Your task to perform on an android device: Open Wikipedia Image 0: 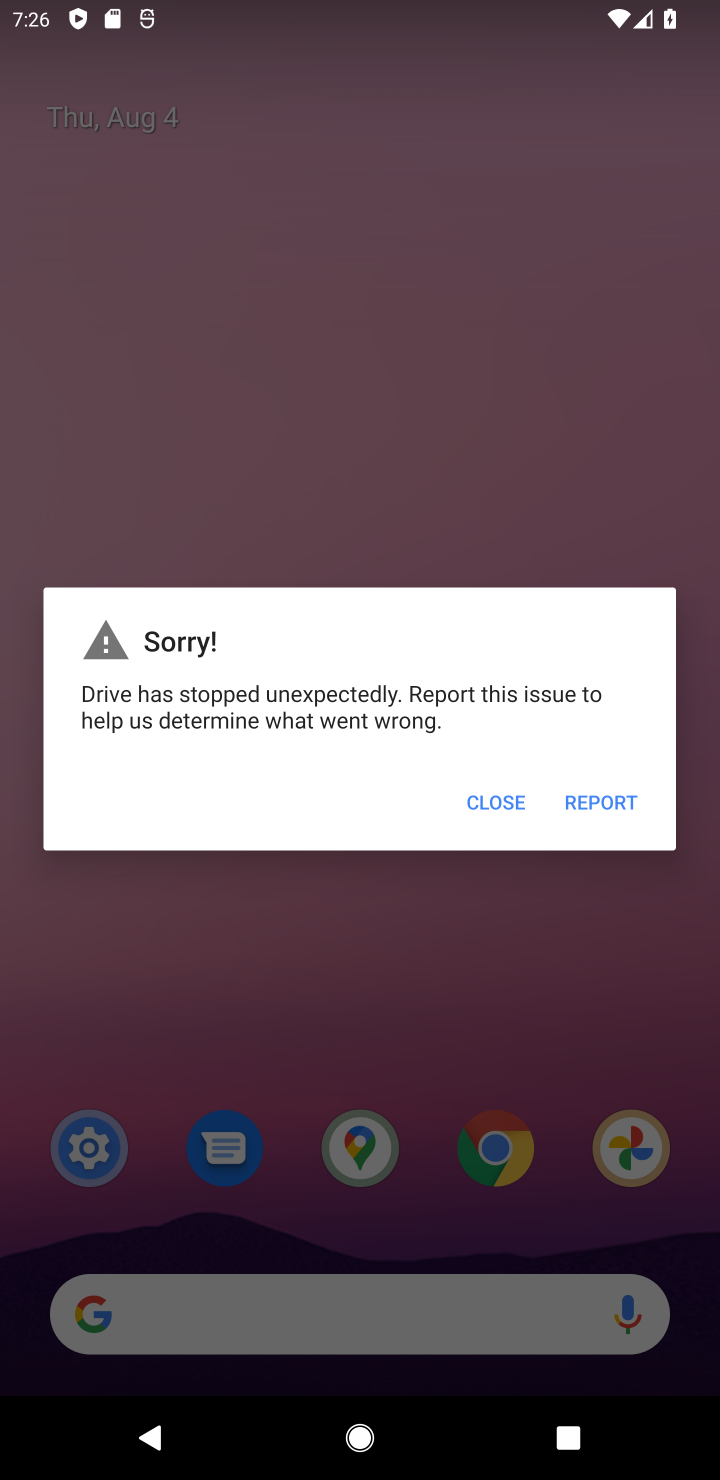
Step 0: press back button
Your task to perform on an android device: Open Wikipedia Image 1: 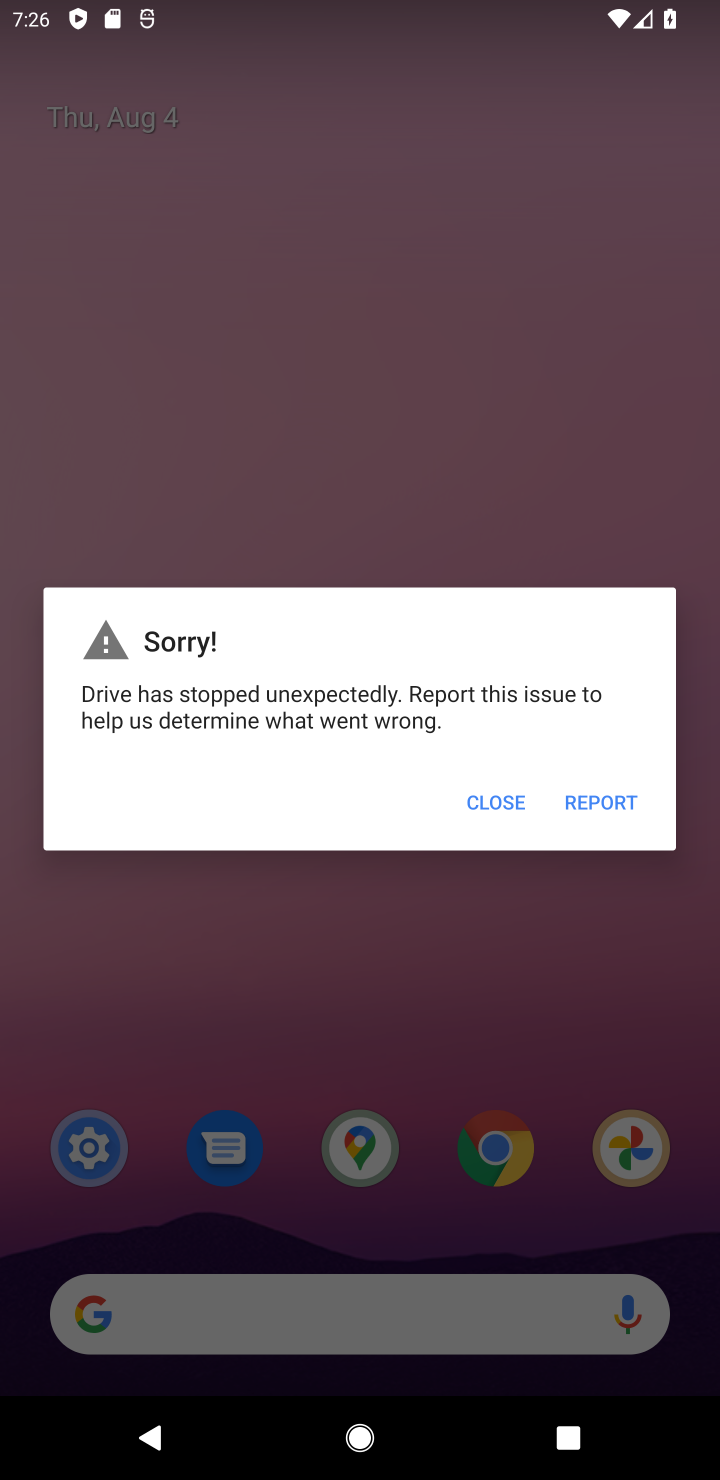
Step 1: press back button
Your task to perform on an android device: Open Wikipedia Image 2: 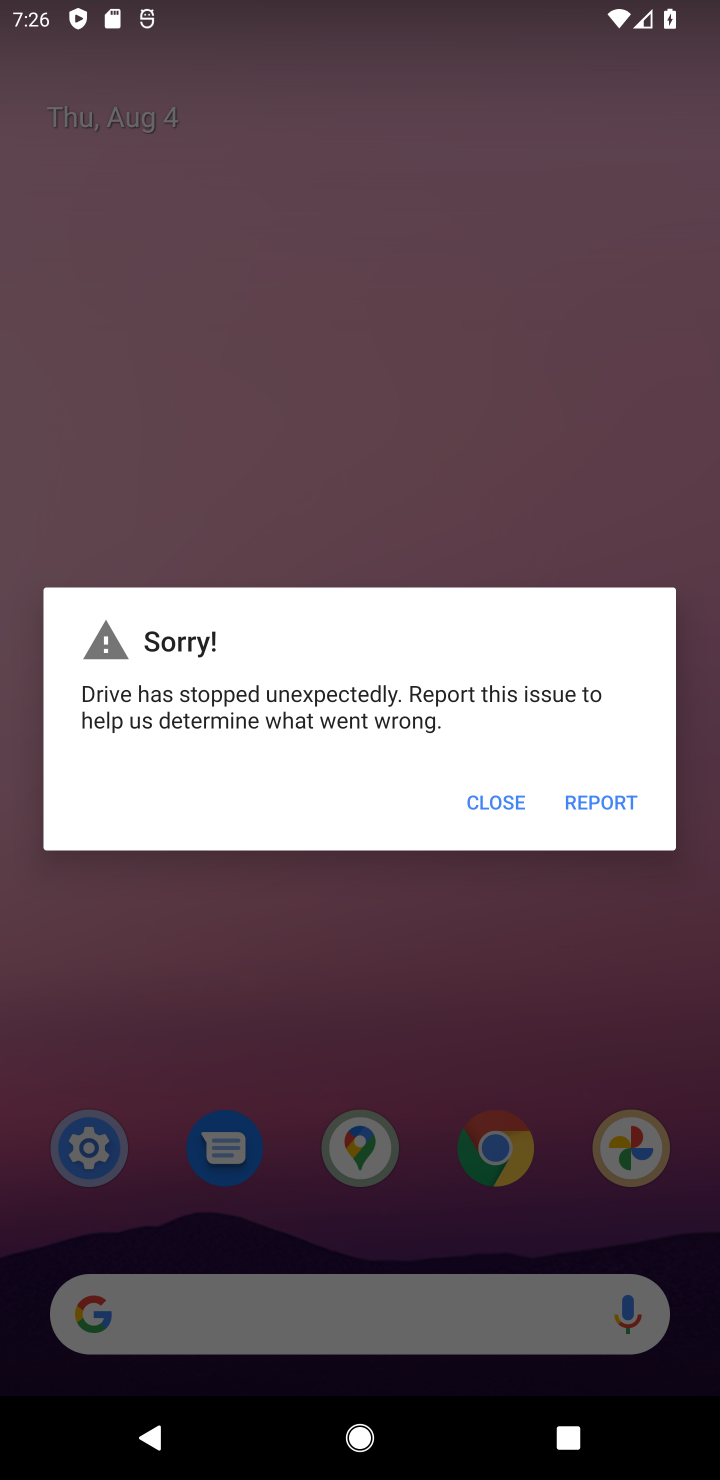
Step 2: press back button
Your task to perform on an android device: Open Wikipedia Image 3: 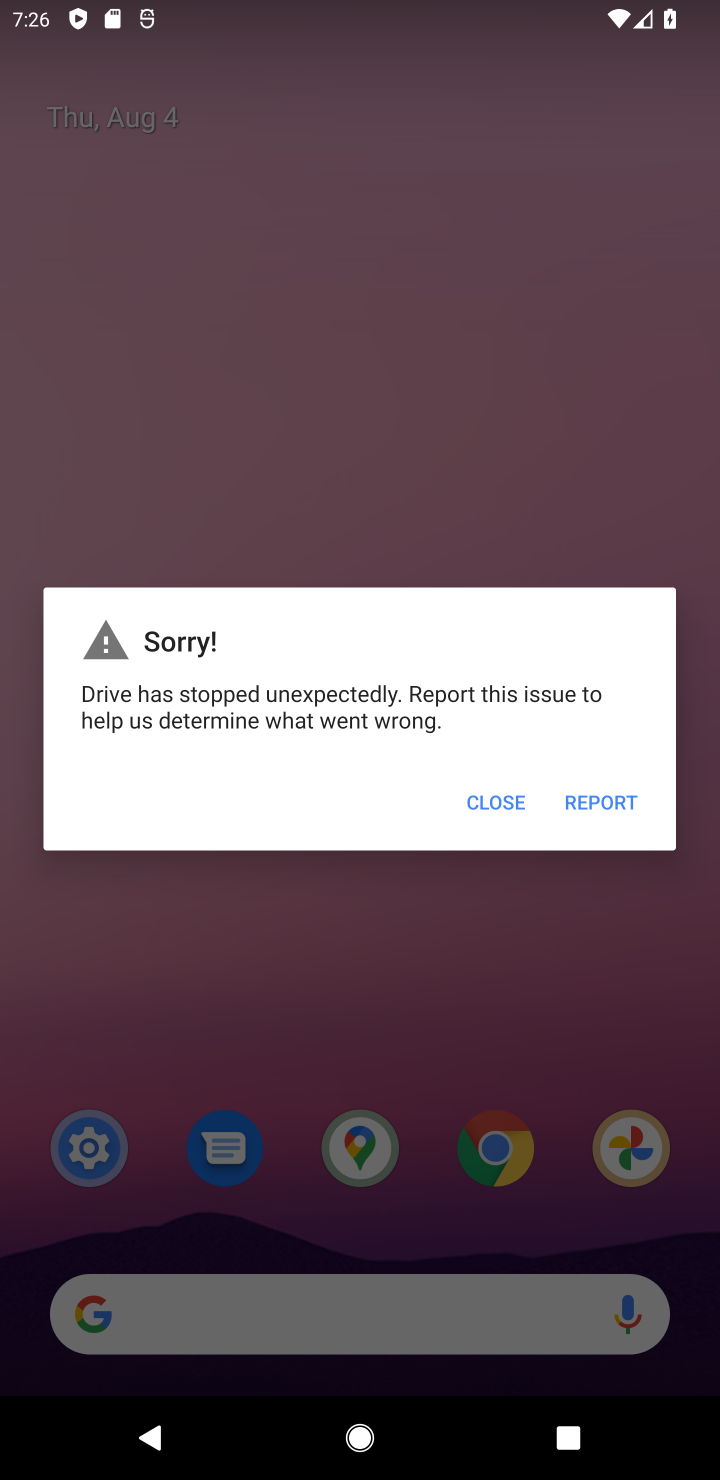
Step 3: click (504, 819)
Your task to perform on an android device: Open Wikipedia Image 4: 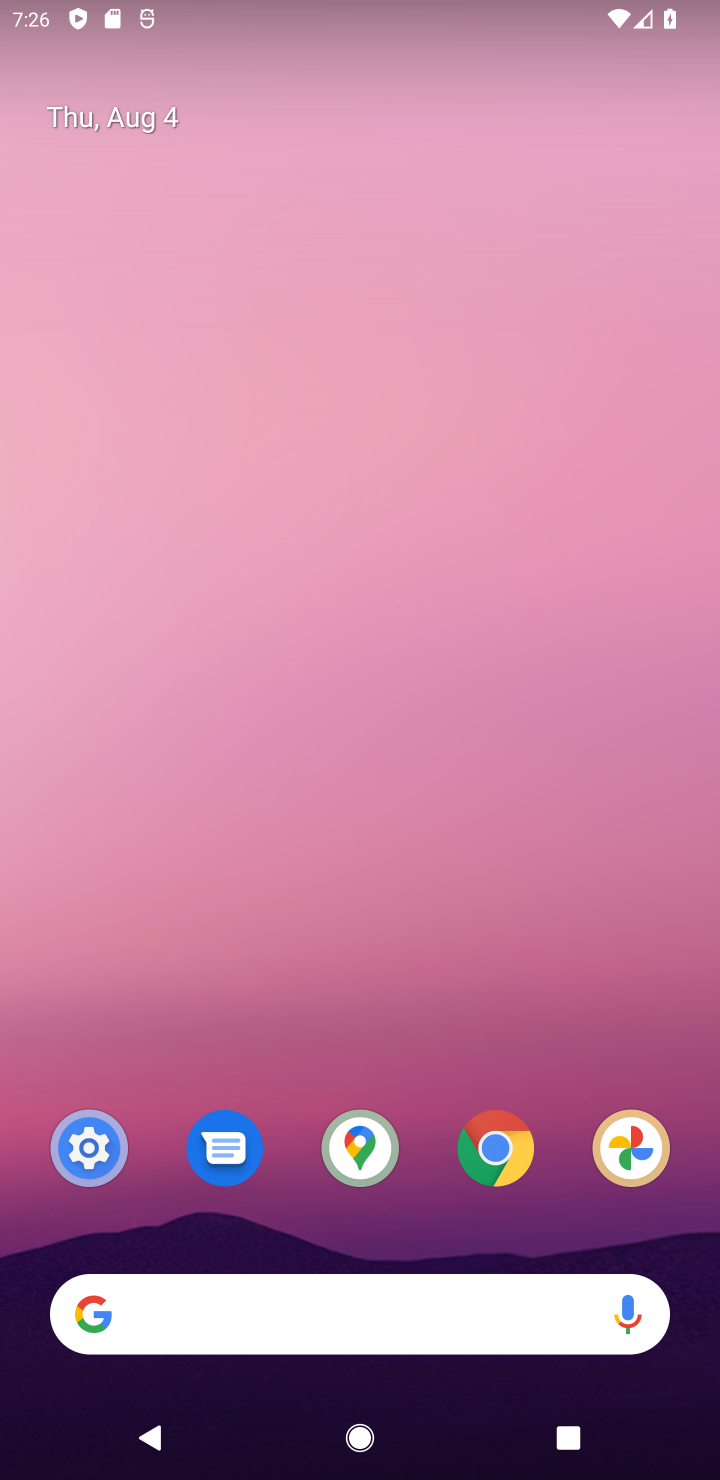
Step 4: click (491, 1155)
Your task to perform on an android device: Open Wikipedia Image 5: 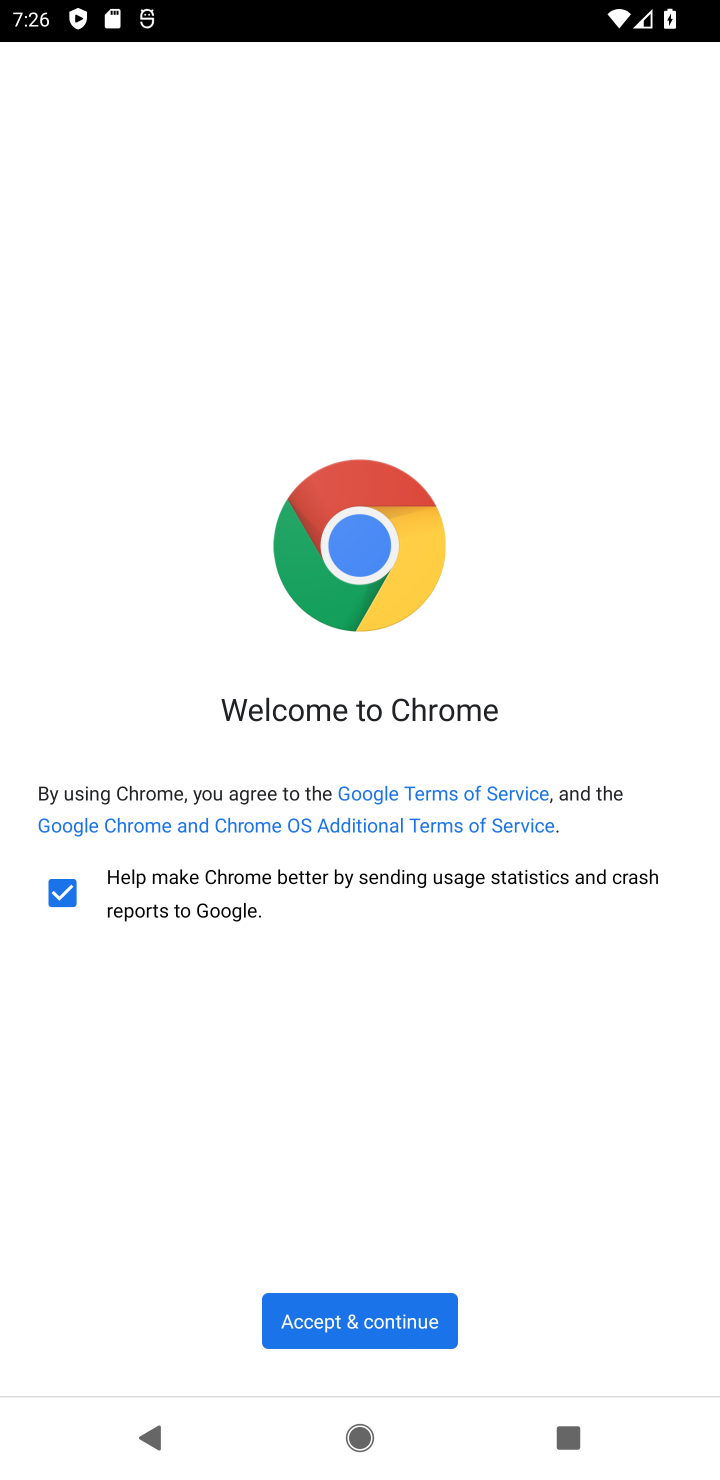
Step 5: click (431, 1328)
Your task to perform on an android device: Open Wikipedia Image 6: 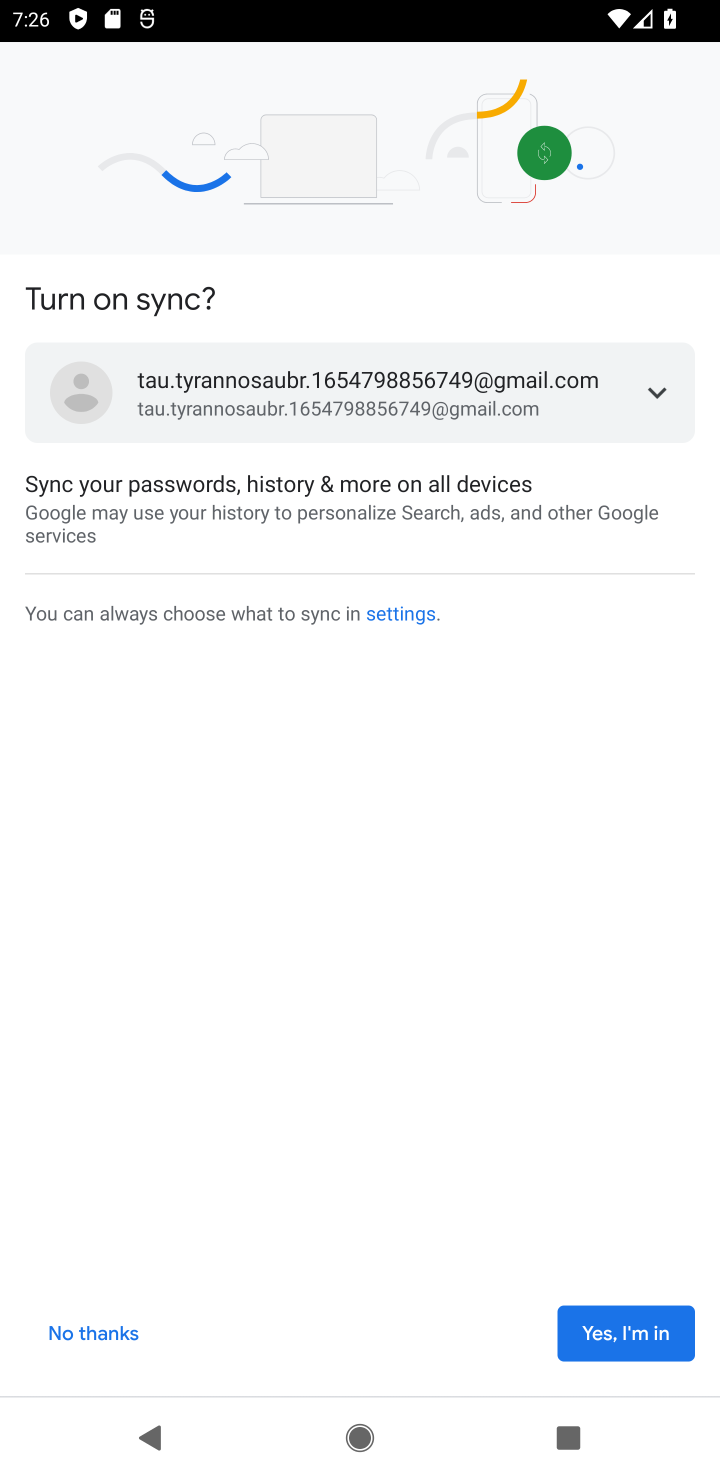
Step 6: click (579, 1335)
Your task to perform on an android device: Open Wikipedia Image 7: 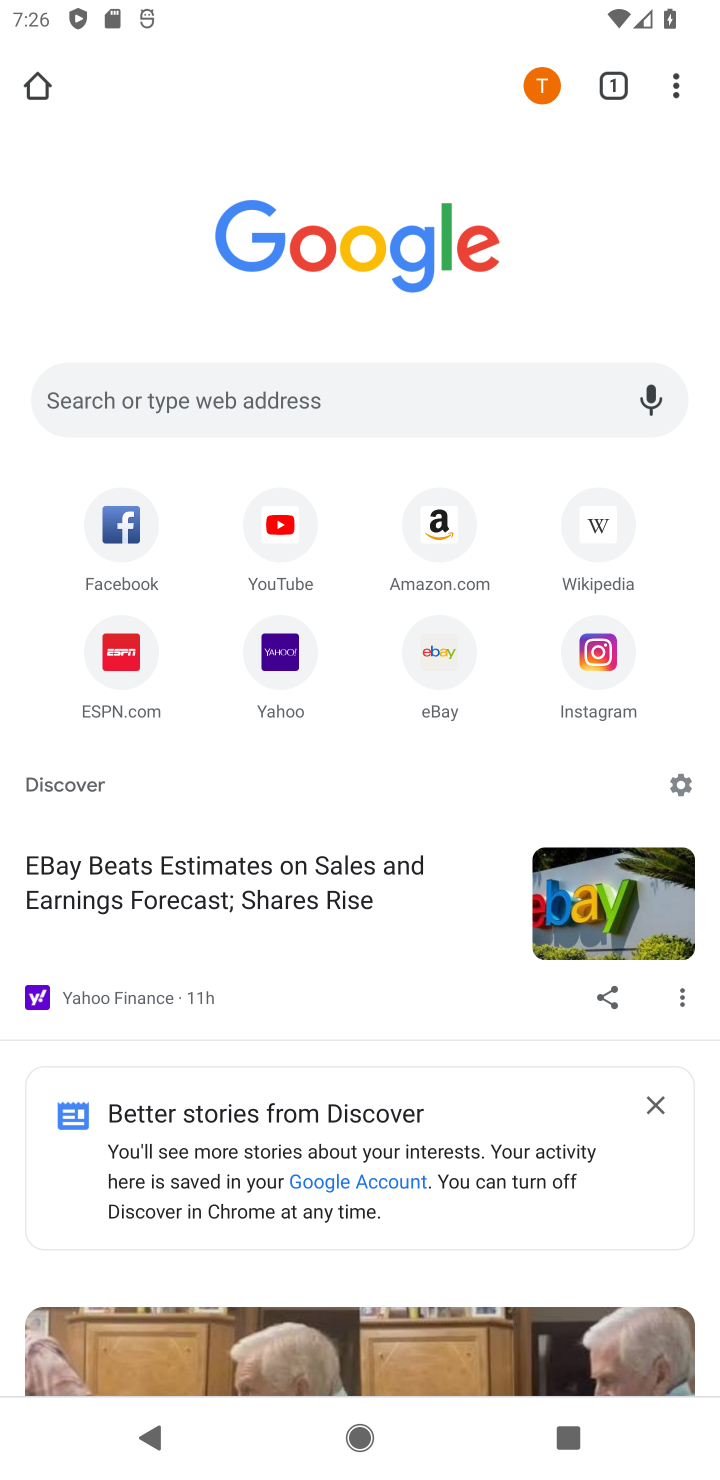
Step 7: click (596, 539)
Your task to perform on an android device: Open Wikipedia Image 8: 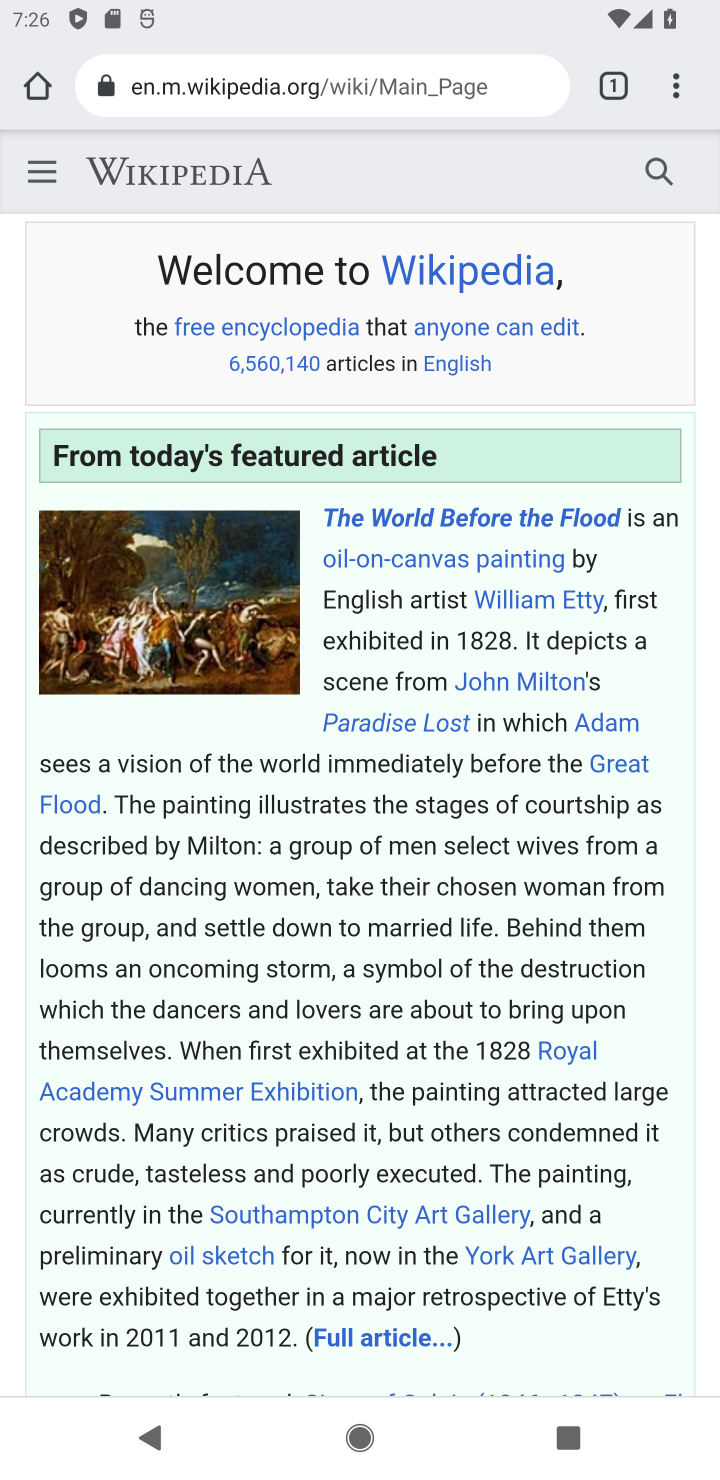
Step 8: task complete